Your task to perform on an android device: see sites visited before in the chrome app Image 0: 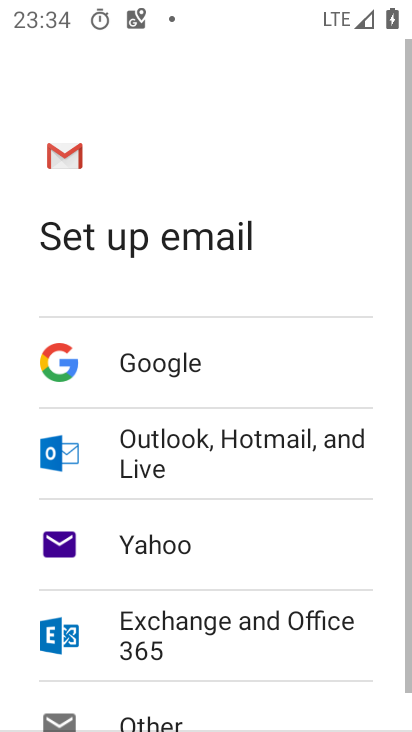
Step 0: press home button
Your task to perform on an android device: see sites visited before in the chrome app Image 1: 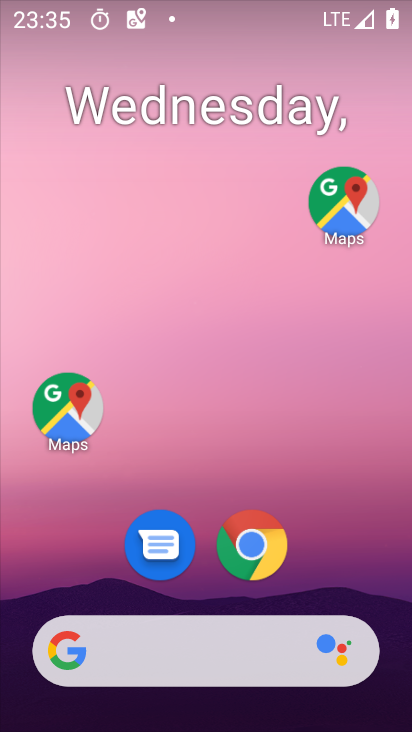
Step 1: click (254, 538)
Your task to perform on an android device: see sites visited before in the chrome app Image 2: 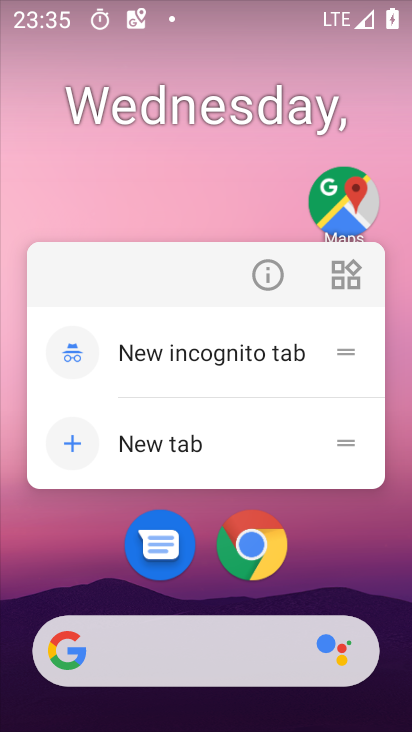
Step 2: click (254, 538)
Your task to perform on an android device: see sites visited before in the chrome app Image 3: 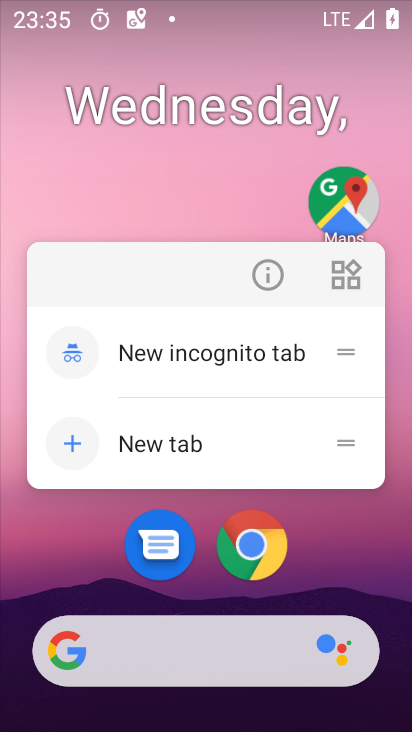
Step 3: click (247, 534)
Your task to perform on an android device: see sites visited before in the chrome app Image 4: 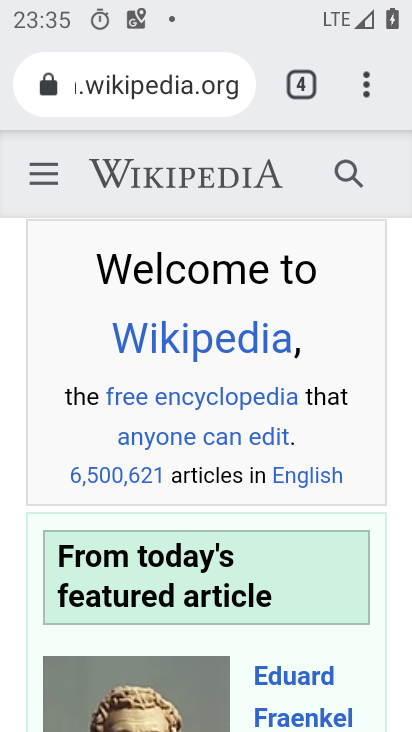
Step 4: click (349, 85)
Your task to perform on an android device: see sites visited before in the chrome app Image 5: 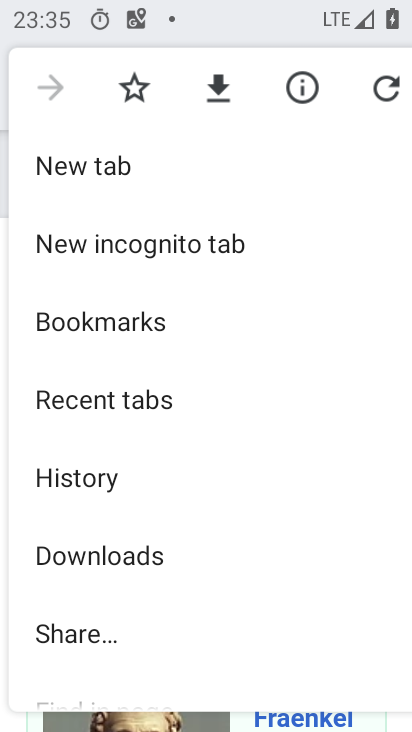
Step 5: click (119, 496)
Your task to perform on an android device: see sites visited before in the chrome app Image 6: 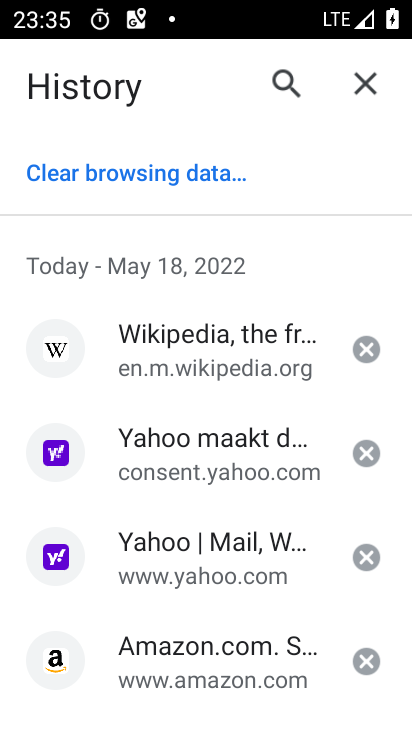
Step 6: task complete